Your task to perform on an android device: open chrome and create a bookmark for the current page Image 0: 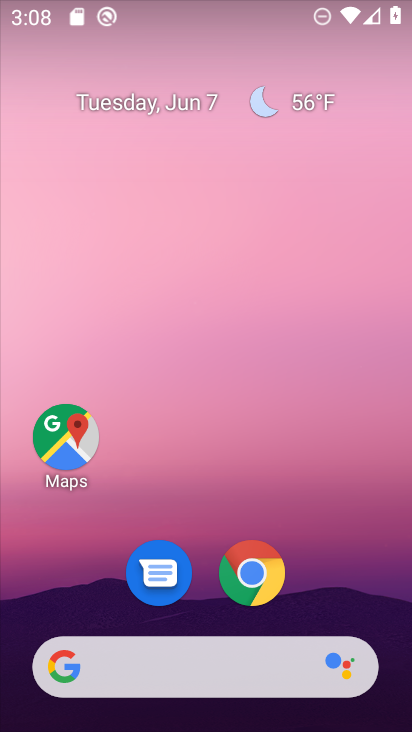
Step 0: click (239, 574)
Your task to perform on an android device: open chrome and create a bookmark for the current page Image 1: 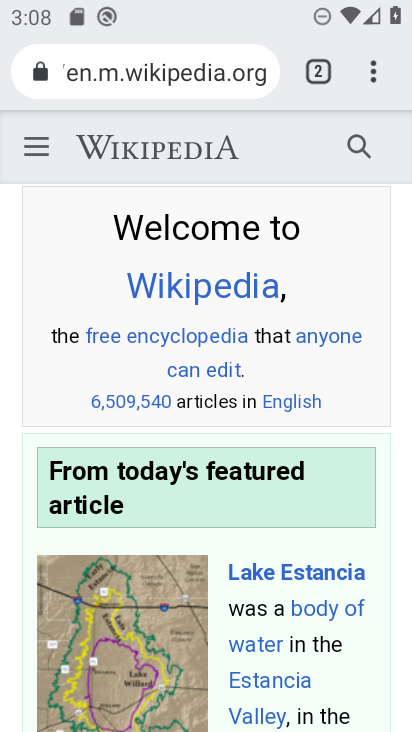
Step 1: click (382, 90)
Your task to perform on an android device: open chrome and create a bookmark for the current page Image 2: 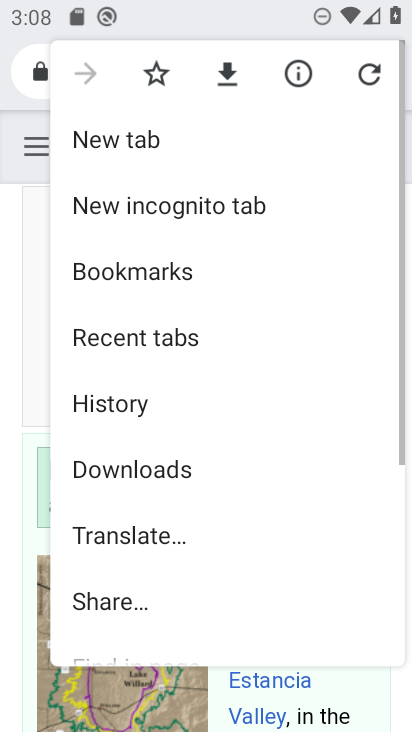
Step 2: click (155, 72)
Your task to perform on an android device: open chrome and create a bookmark for the current page Image 3: 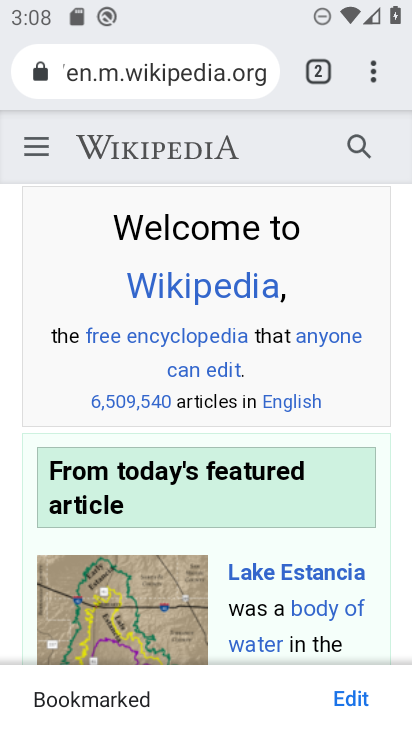
Step 3: task complete